Your task to perform on an android device: Add "logitech g502" to the cart on ebay.com, then select checkout. Image 0: 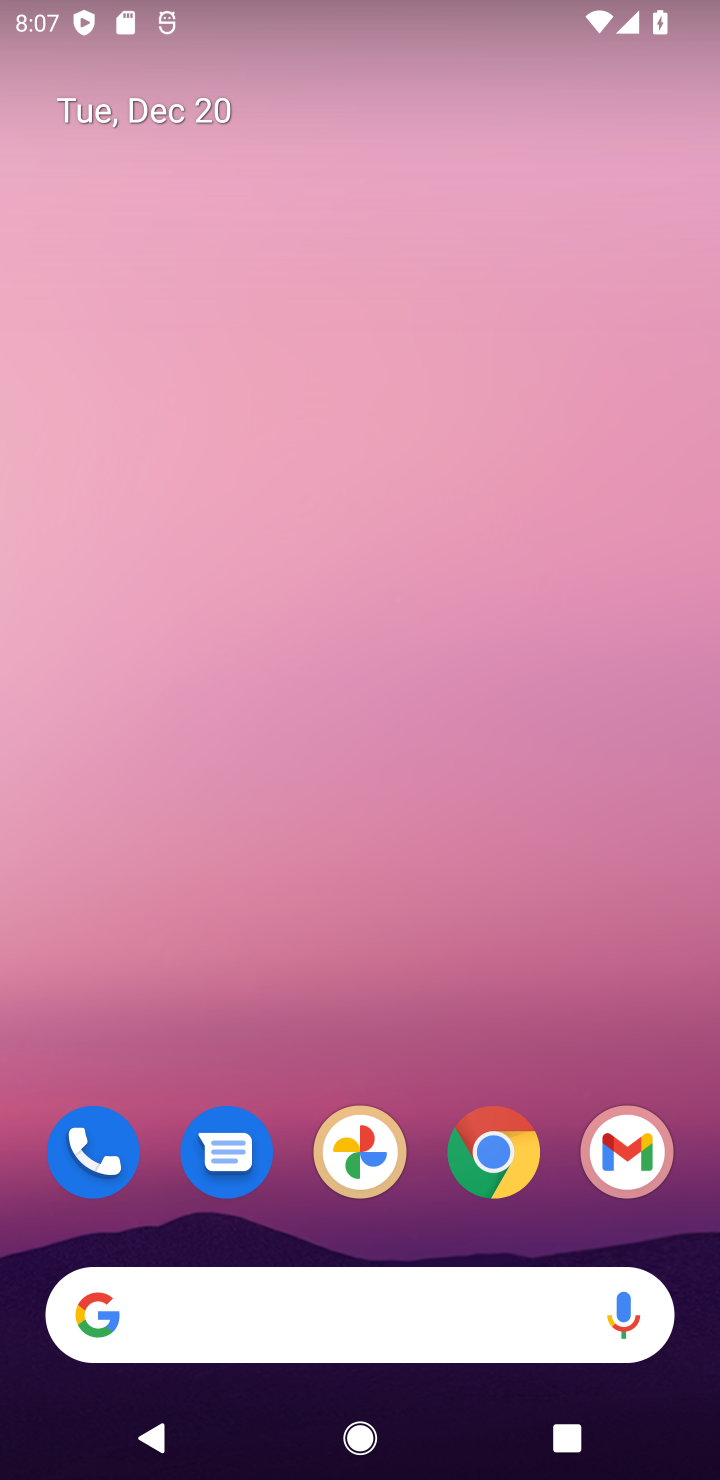
Step 0: click (502, 1178)
Your task to perform on an android device: Add "logitech g502" to the cart on ebay.com, then select checkout. Image 1: 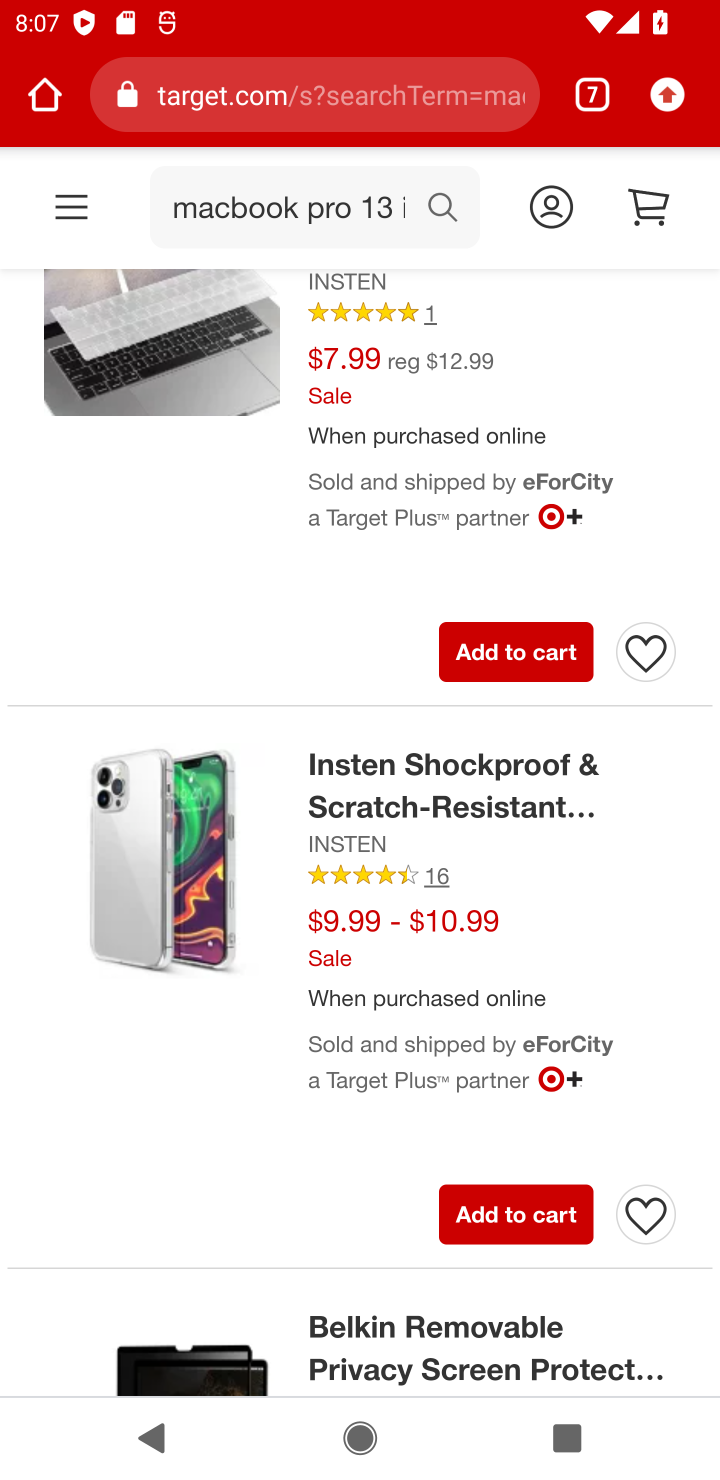
Step 1: click (600, 98)
Your task to perform on an android device: Add "logitech g502" to the cart on ebay.com, then select checkout. Image 2: 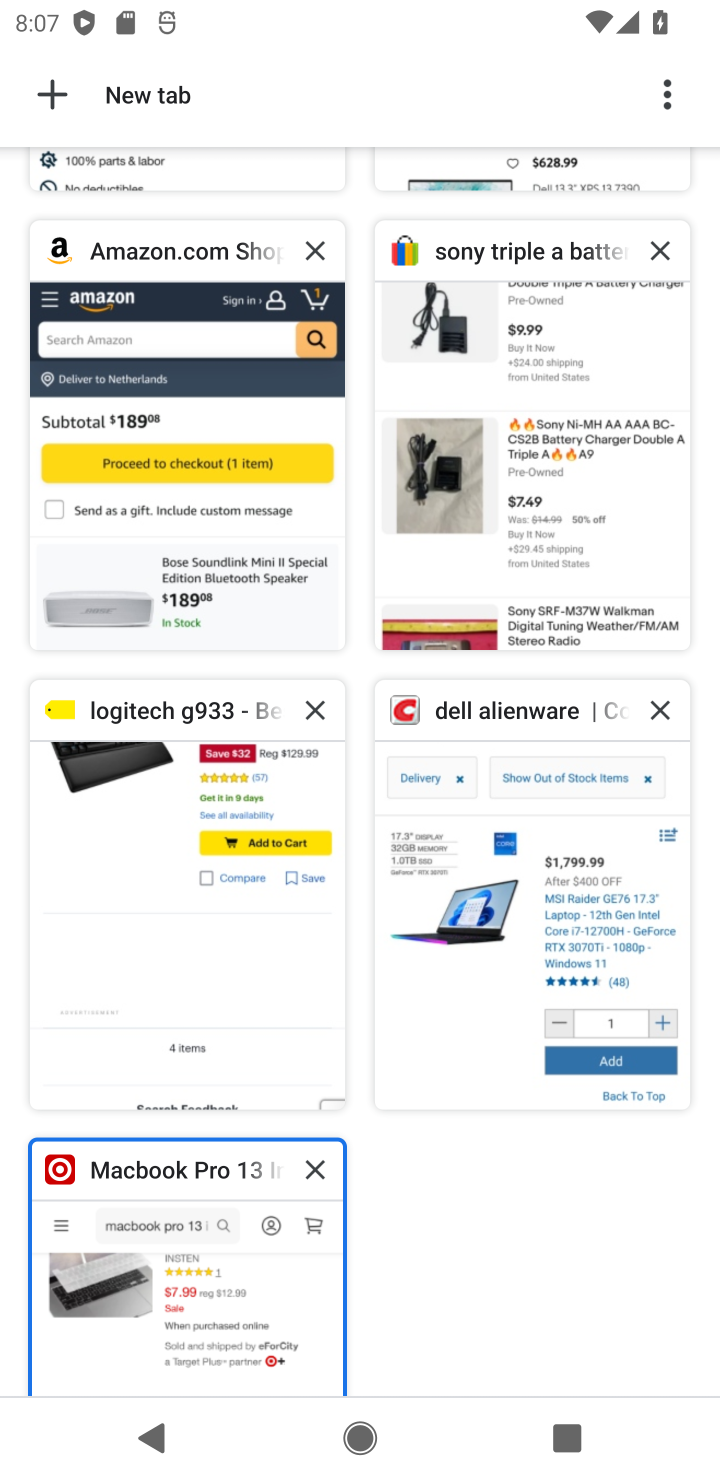
Step 2: click (464, 376)
Your task to perform on an android device: Add "logitech g502" to the cart on ebay.com, then select checkout. Image 3: 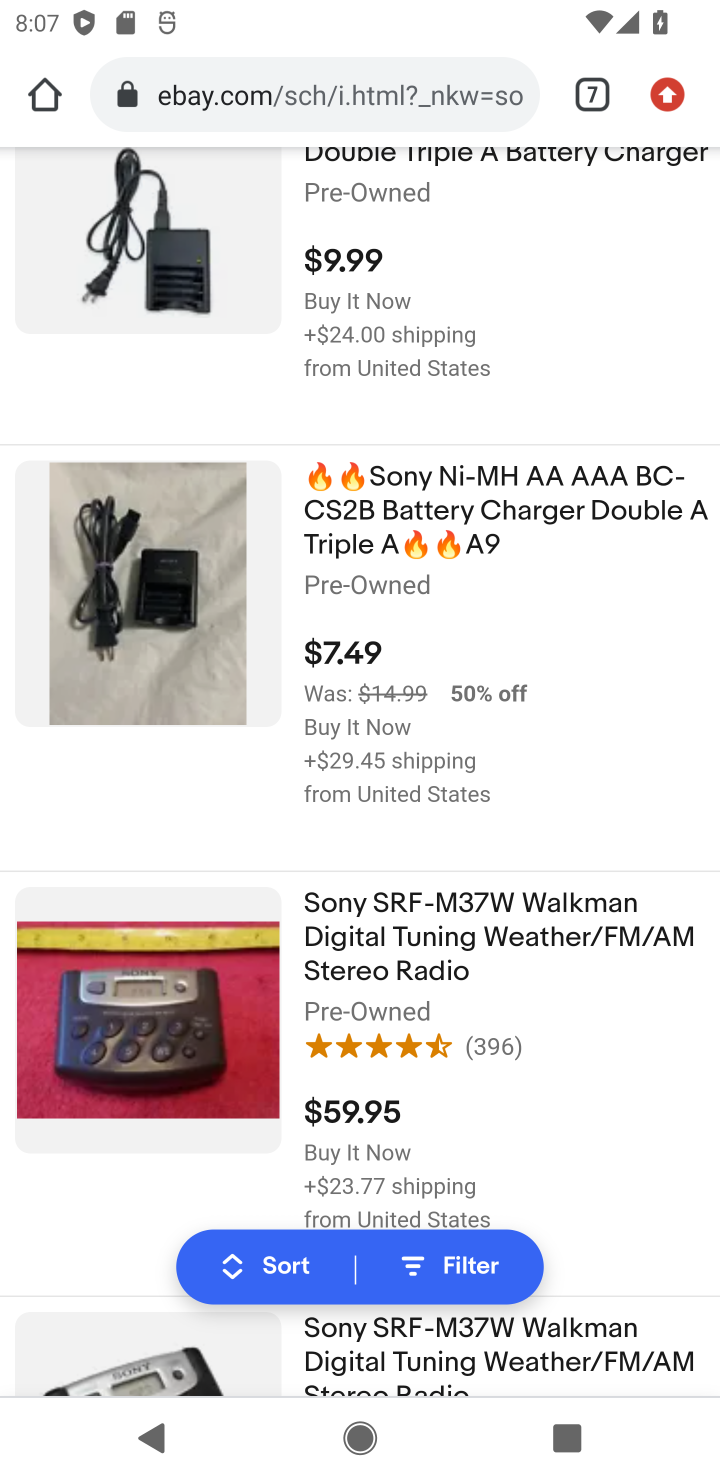
Step 3: drag from (570, 289) to (456, 1033)
Your task to perform on an android device: Add "logitech g502" to the cart on ebay.com, then select checkout. Image 4: 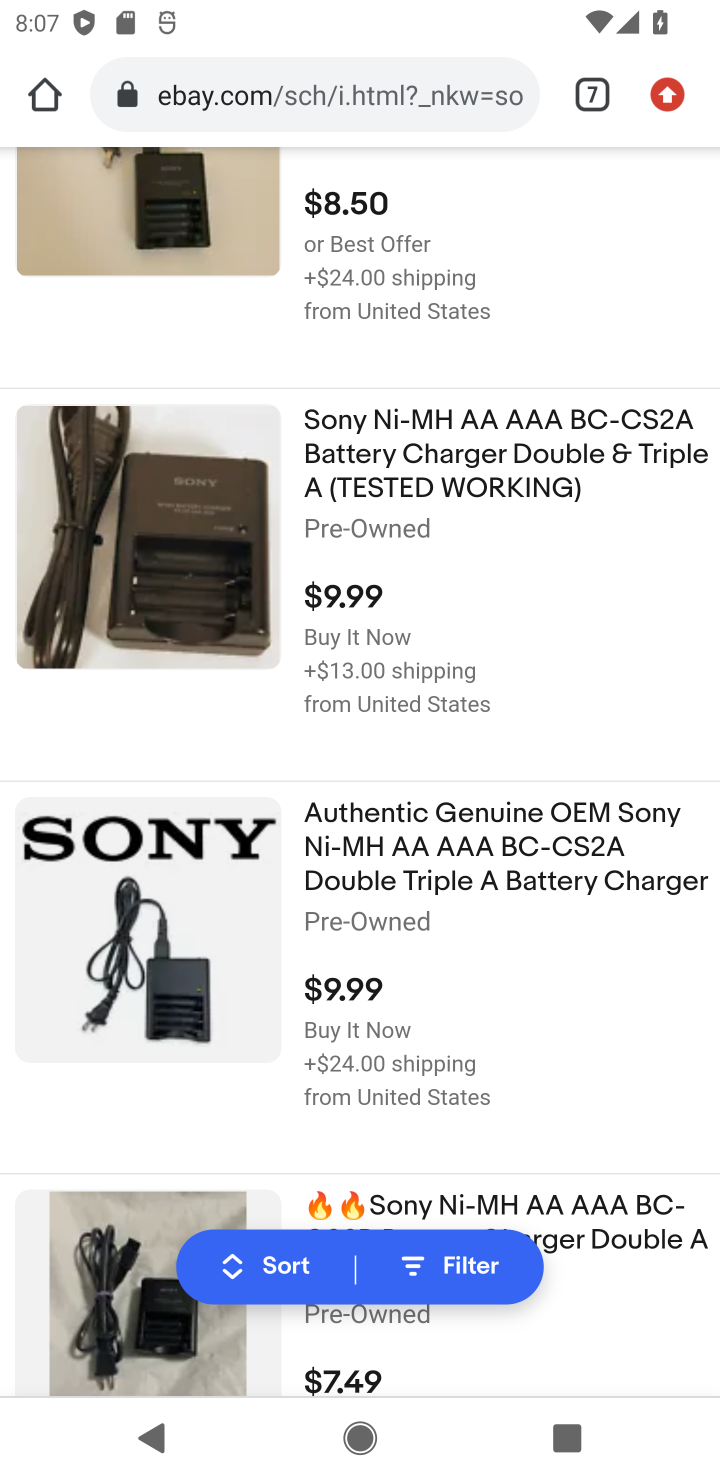
Step 4: drag from (481, 221) to (321, 888)
Your task to perform on an android device: Add "logitech g502" to the cart on ebay.com, then select checkout. Image 5: 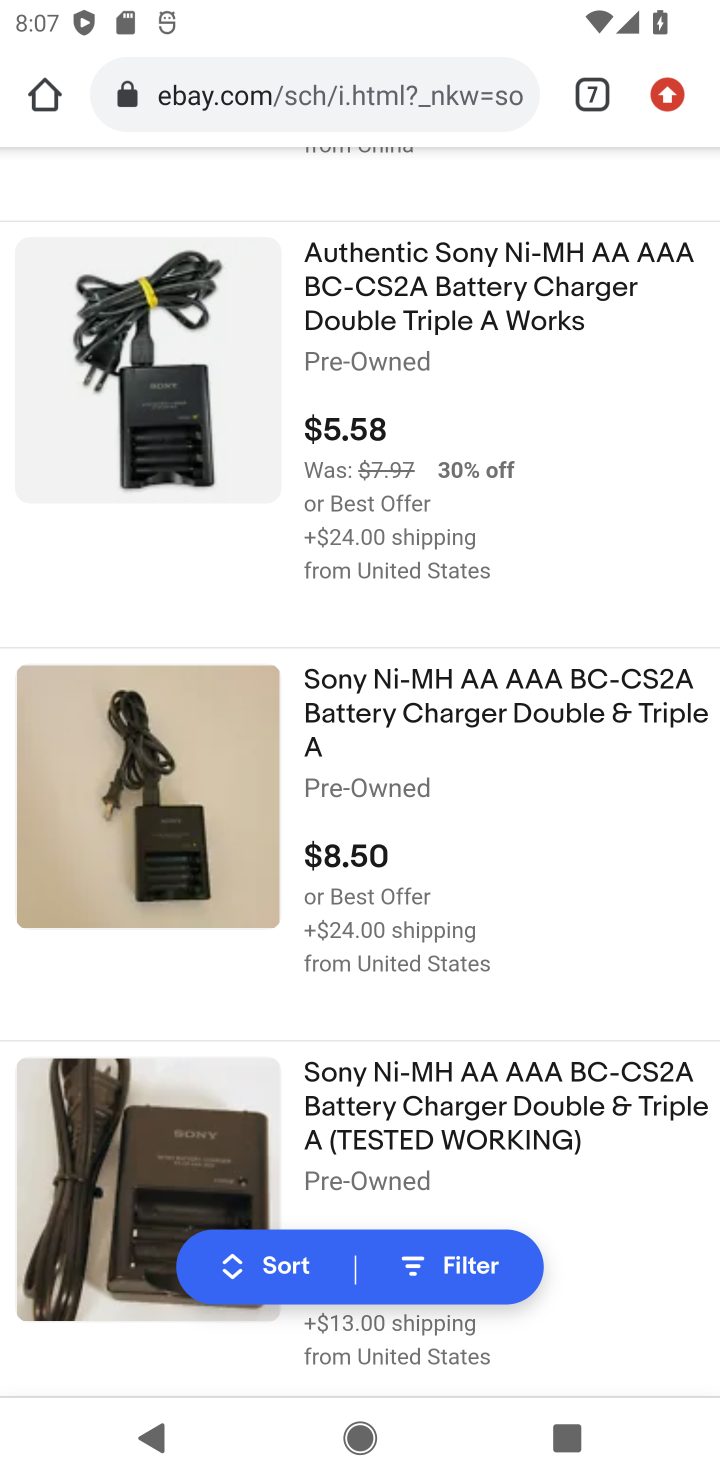
Step 5: drag from (383, 185) to (220, 1112)
Your task to perform on an android device: Add "logitech g502" to the cart on ebay.com, then select checkout. Image 6: 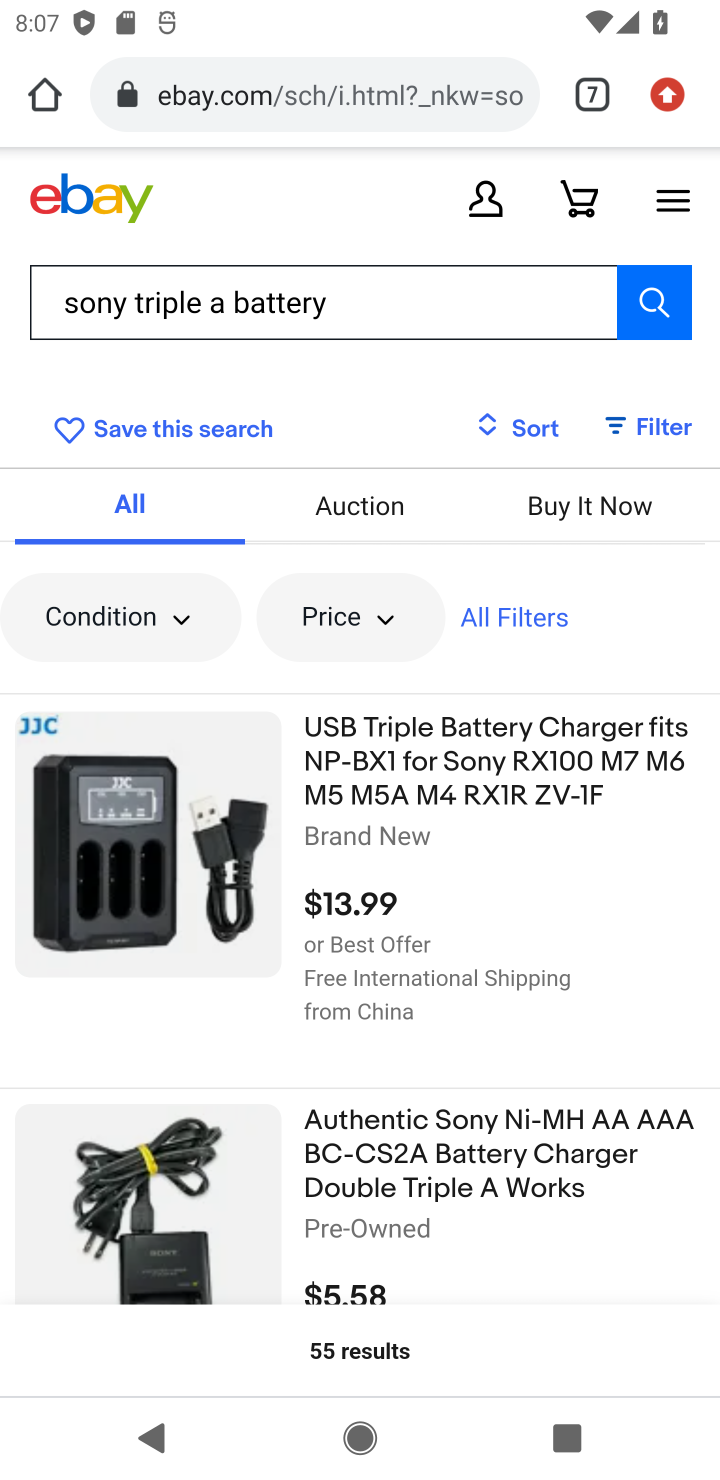
Step 6: click (372, 333)
Your task to perform on an android device: Add "logitech g502" to the cart on ebay.com, then select checkout. Image 7: 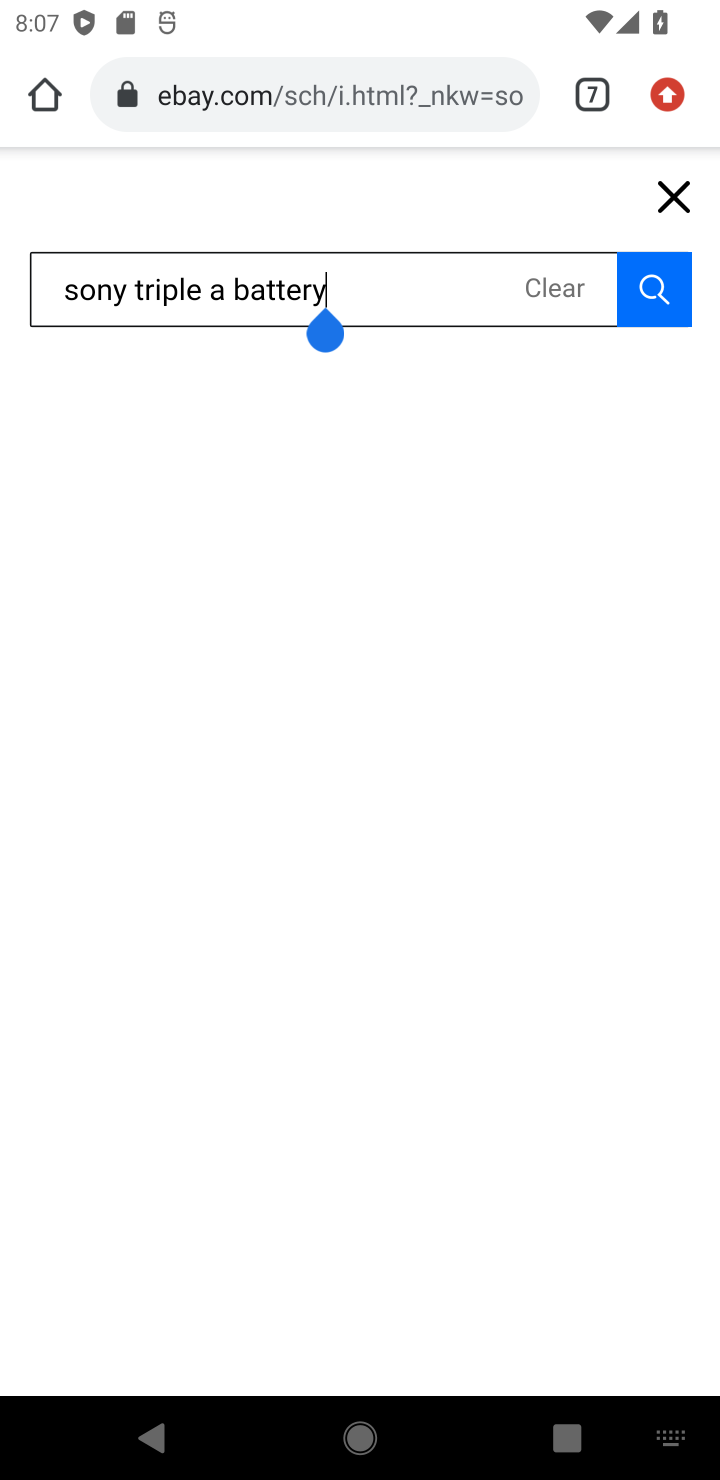
Step 7: click (560, 291)
Your task to perform on an android device: Add "logitech g502" to the cart on ebay.com, then select checkout. Image 8: 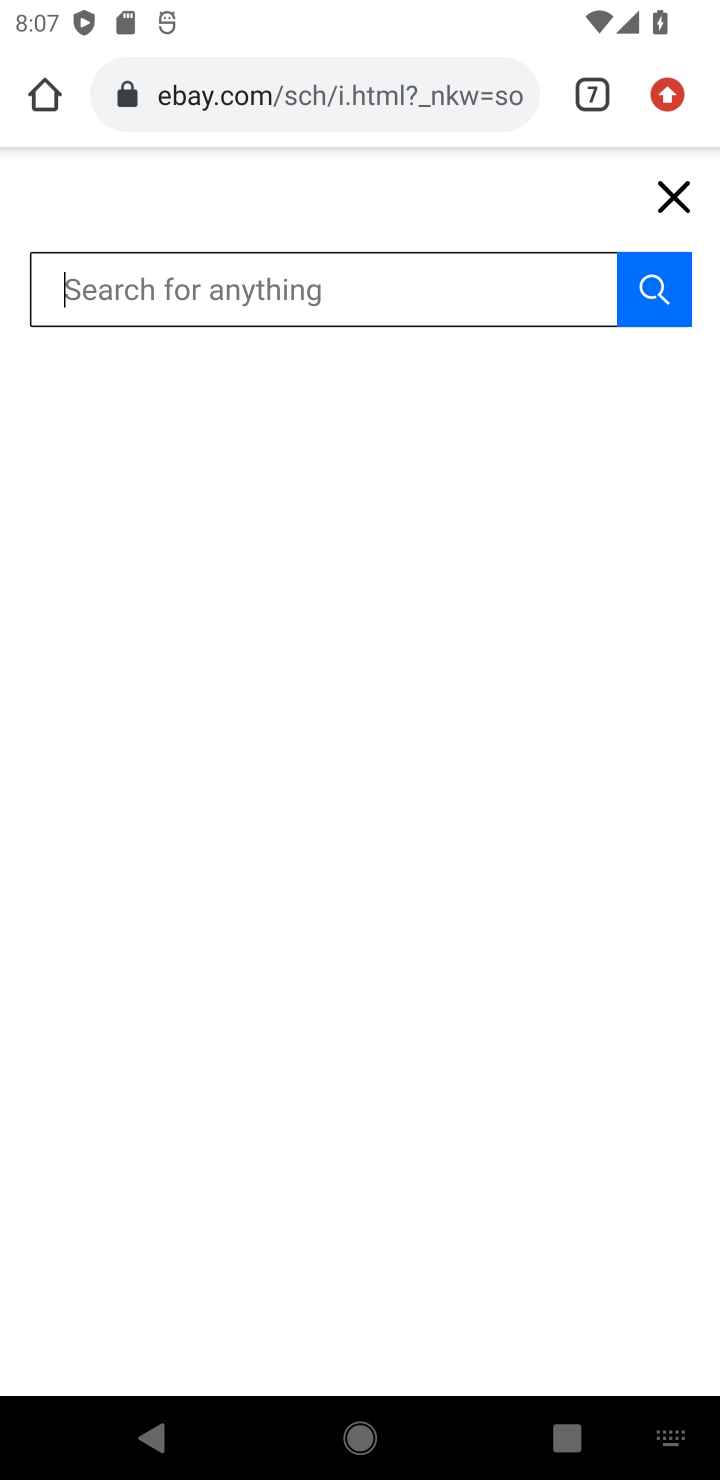
Step 8: type "logitech g502"
Your task to perform on an android device: Add "logitech g502" to the cart on ebay.com, then select checkout. Image 9: 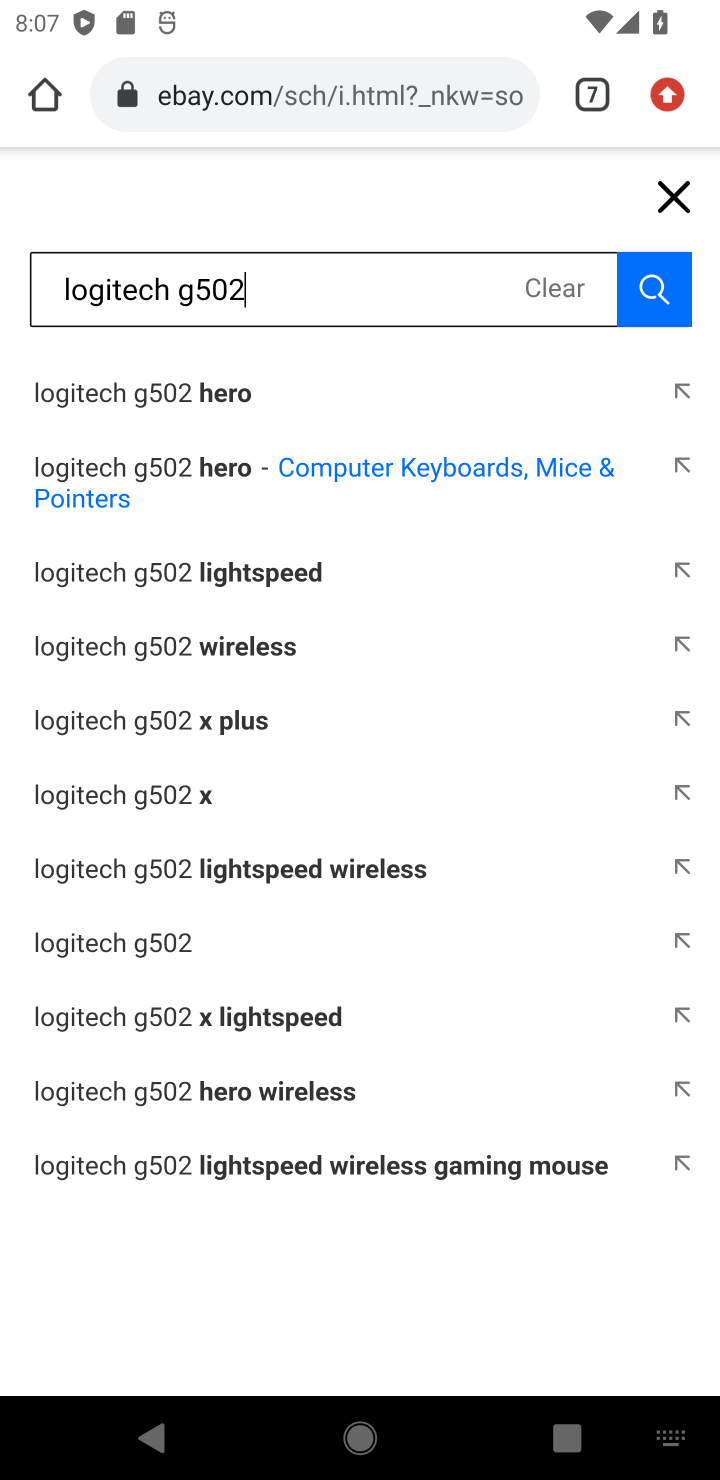
Step 9: click (170, 469)
Your task to perform on an android device: Add "logitech g502" to the cart on ebay.com, then select checkout. Image 10: 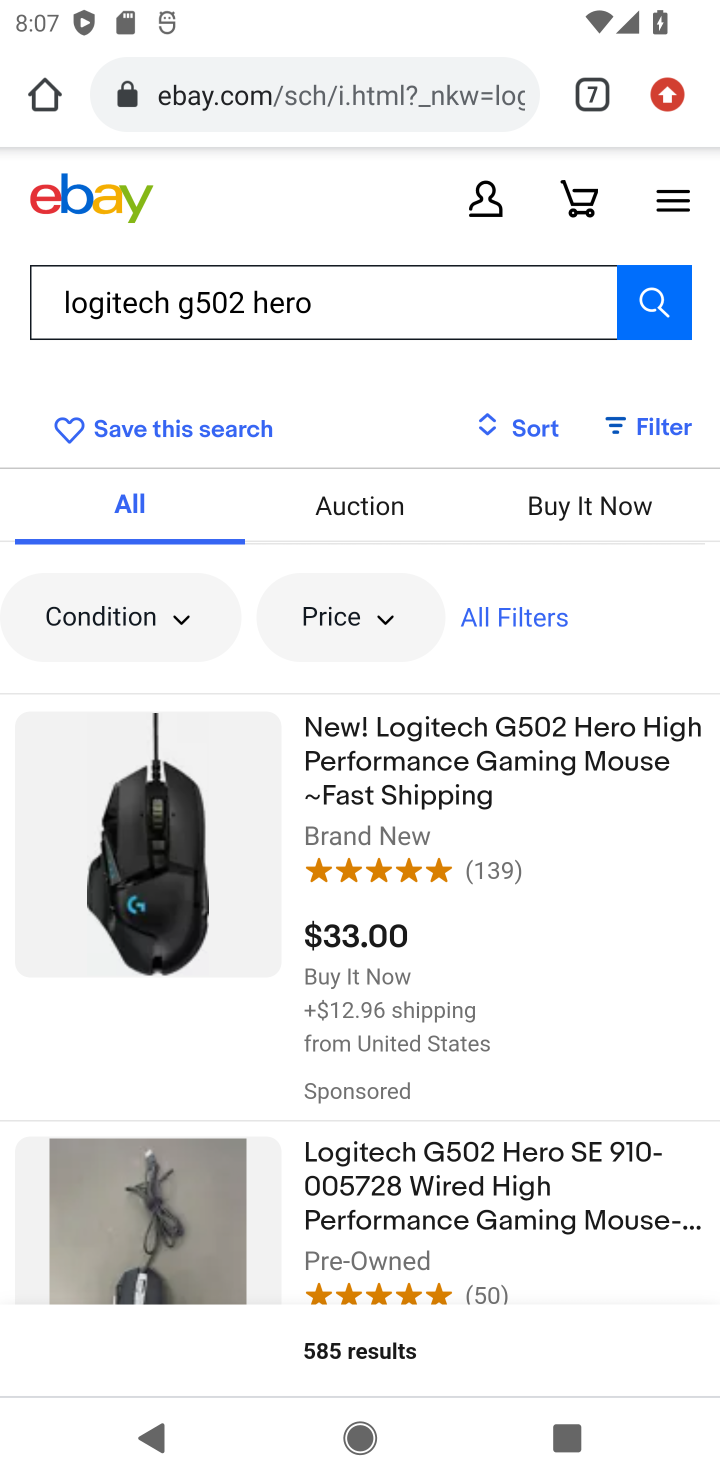
Step 10: click (398, 792)
Your task to perform on an android device: Add "logitech g502" to the cart on ebay.com, then select checkout. Image 11: 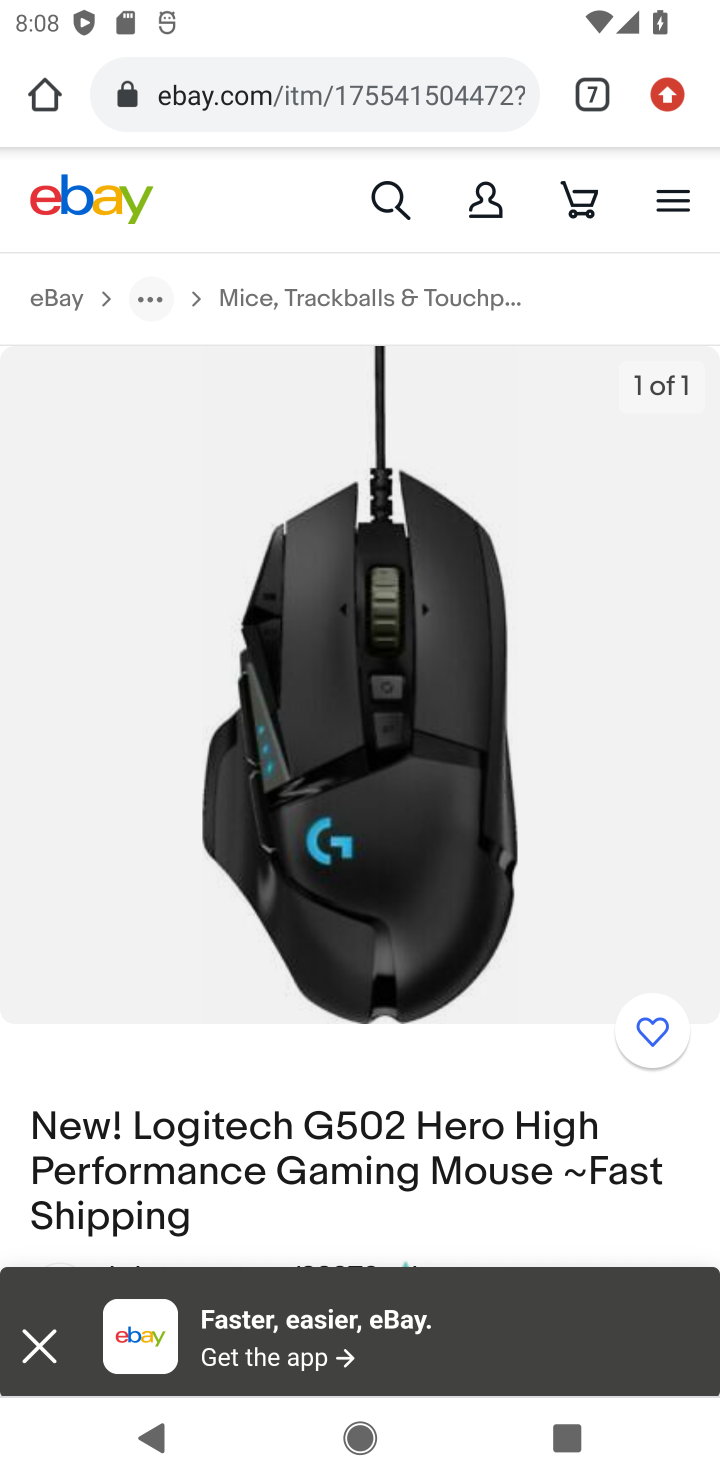
Step 11: click (440, 491)
Your task to perform on an android device: Add "logitech g502" to the cart on ebay.com, then select checkout. Image 12: 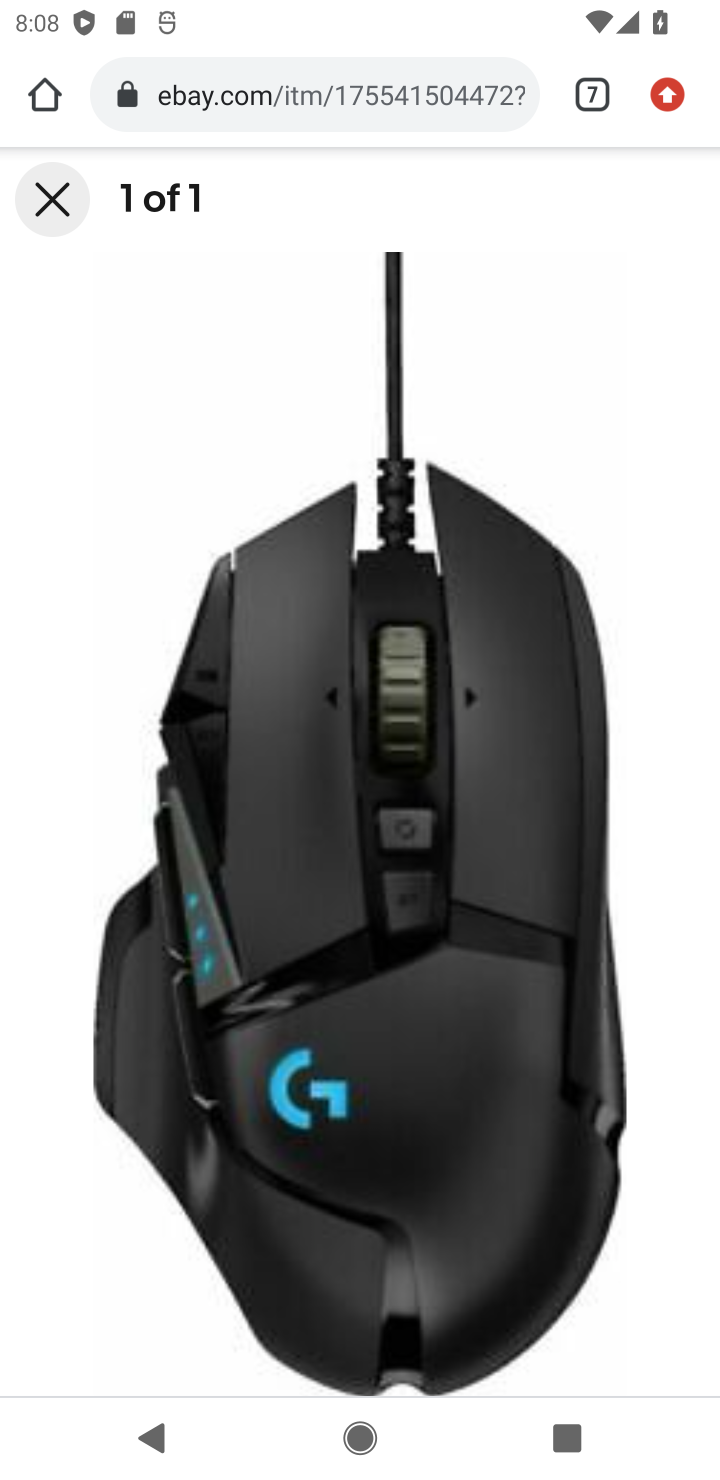
Step 12: click (52, 208)
Your task to perform on an android device: Add "logitech g502" to the cart on ebay.com, then select checkout. Image 13: 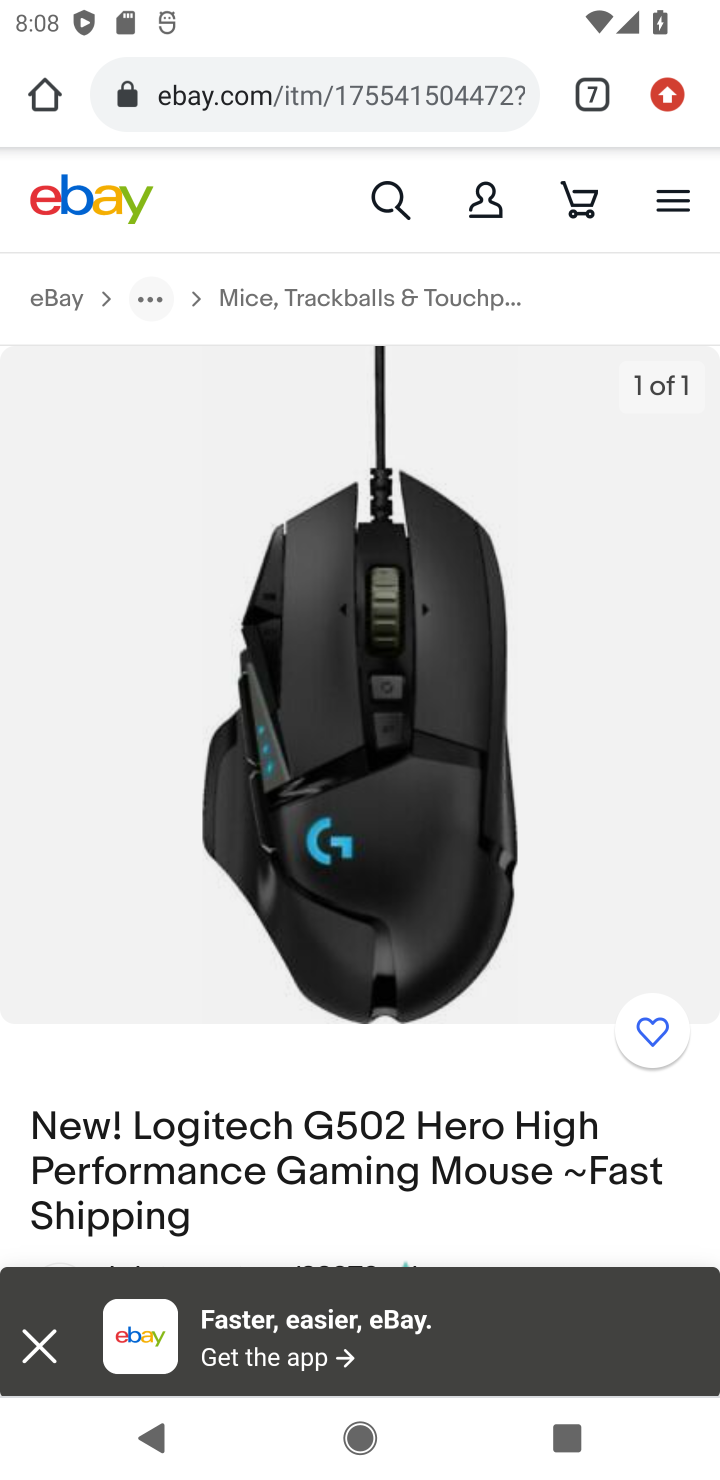
Step 13: click (50, 177)
Your task to perform on an android device: Add "logitech g502" to the cart on ebay.com, then select checkout. Image 14: 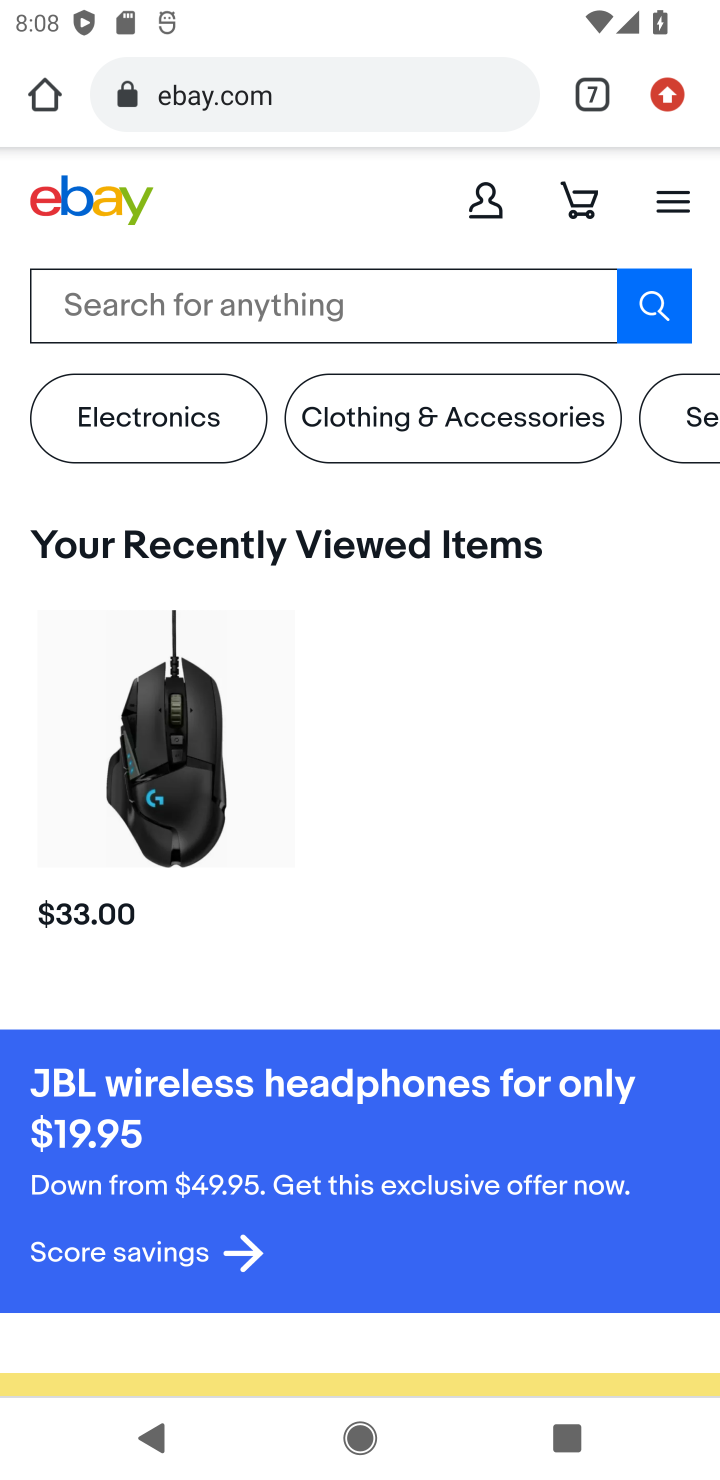
Step 14: drag from (306, 1040) to (408, 257)
Your task to perform on an android device: Add "logitech g502" to the cart on ebay.com, then select checkout. Image 15: 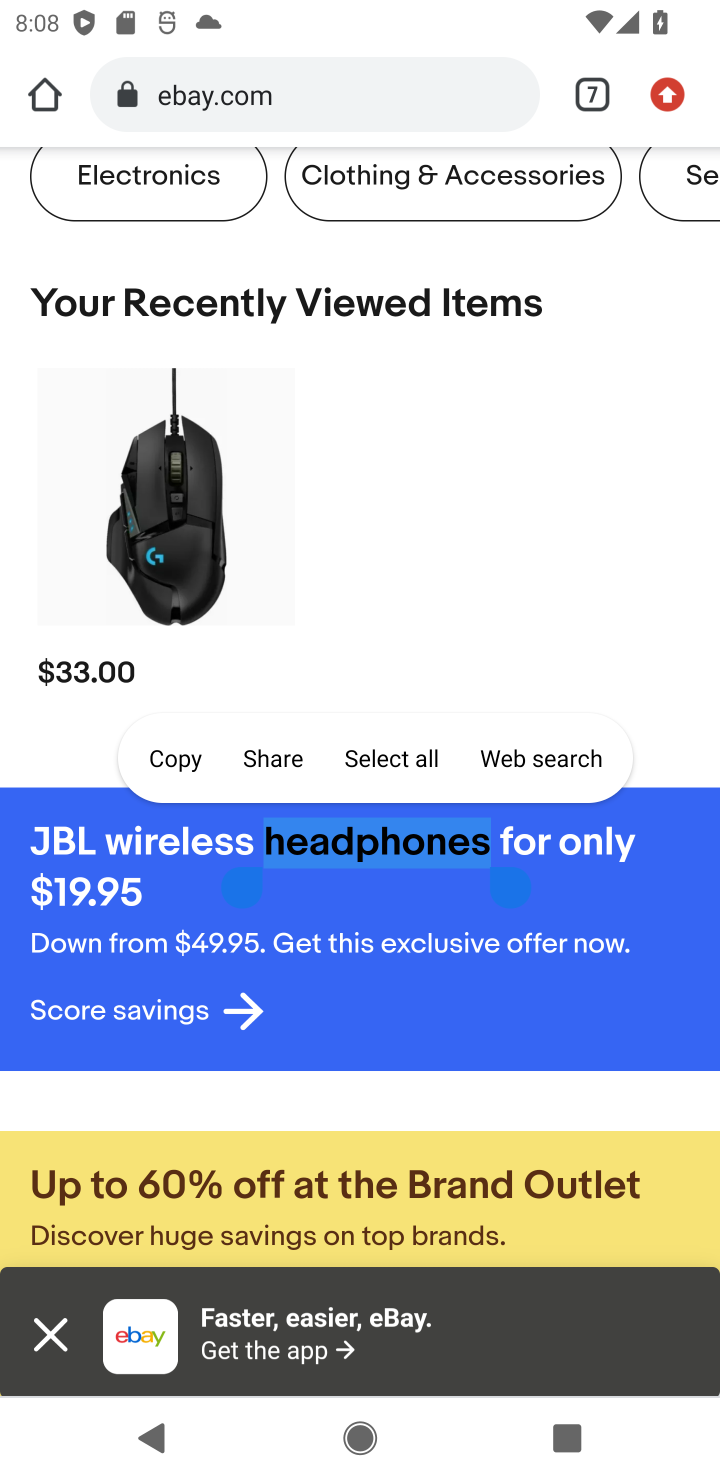
Step 15: click (160, 731)
Your task to perform on an android device: Add "logitech g502" to the cart on ebay.com, then select checkout. Image 16: 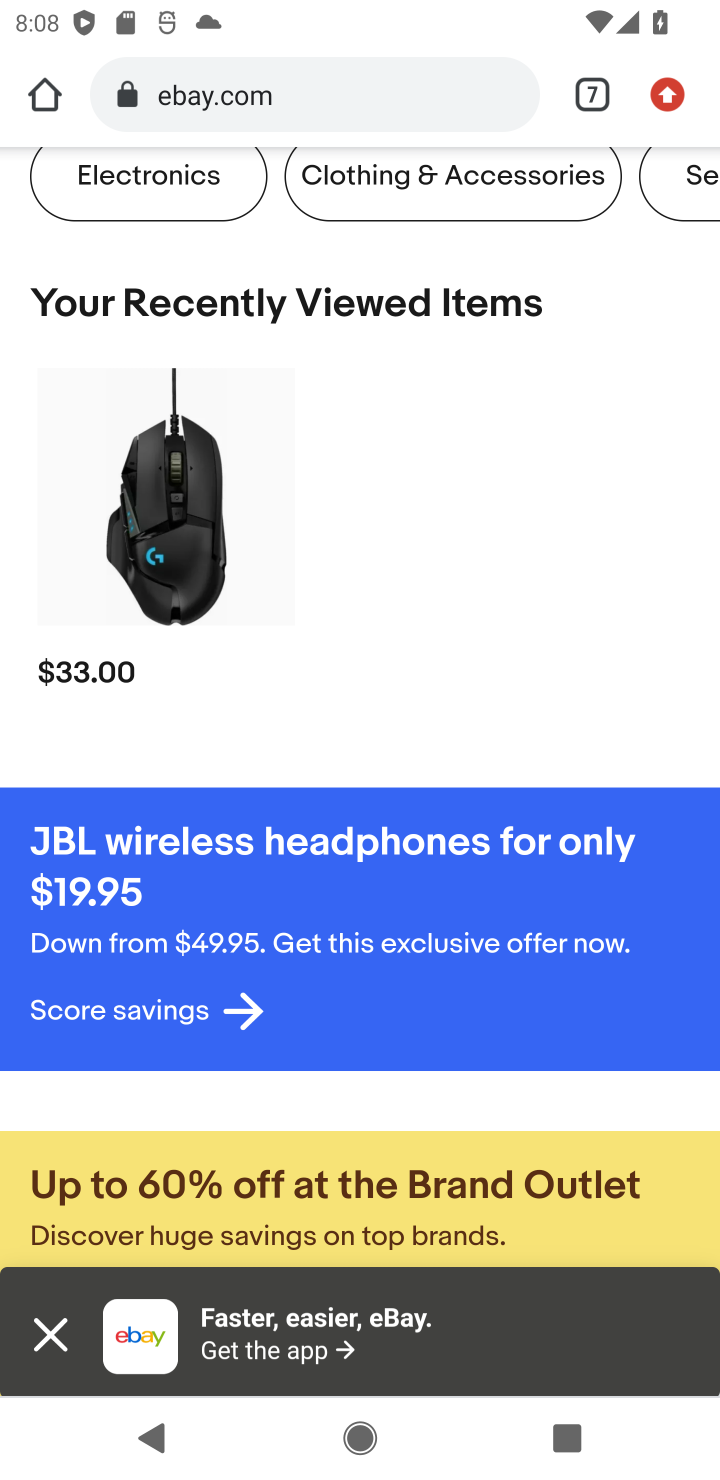
Step 16: click (185, 532)
Your task to perform on an android device: Add "logitech g502" to the cart on ebay.com, then select checkout. Image 17: 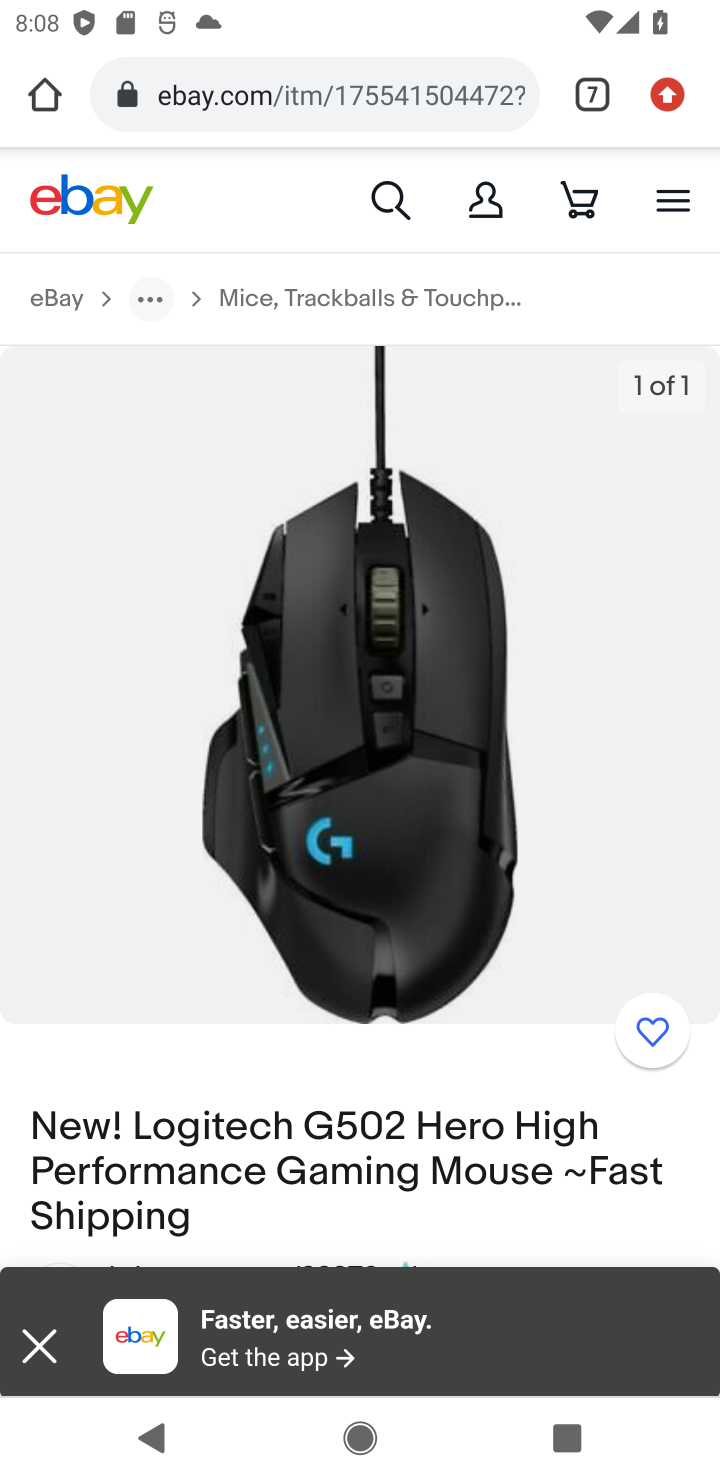
Step 17: drag from (356, 1127) to (477, 505)
Your task to perform on an android device: Add "logitech g502" to the cart on ebay.com, then select checkout. Image 18: 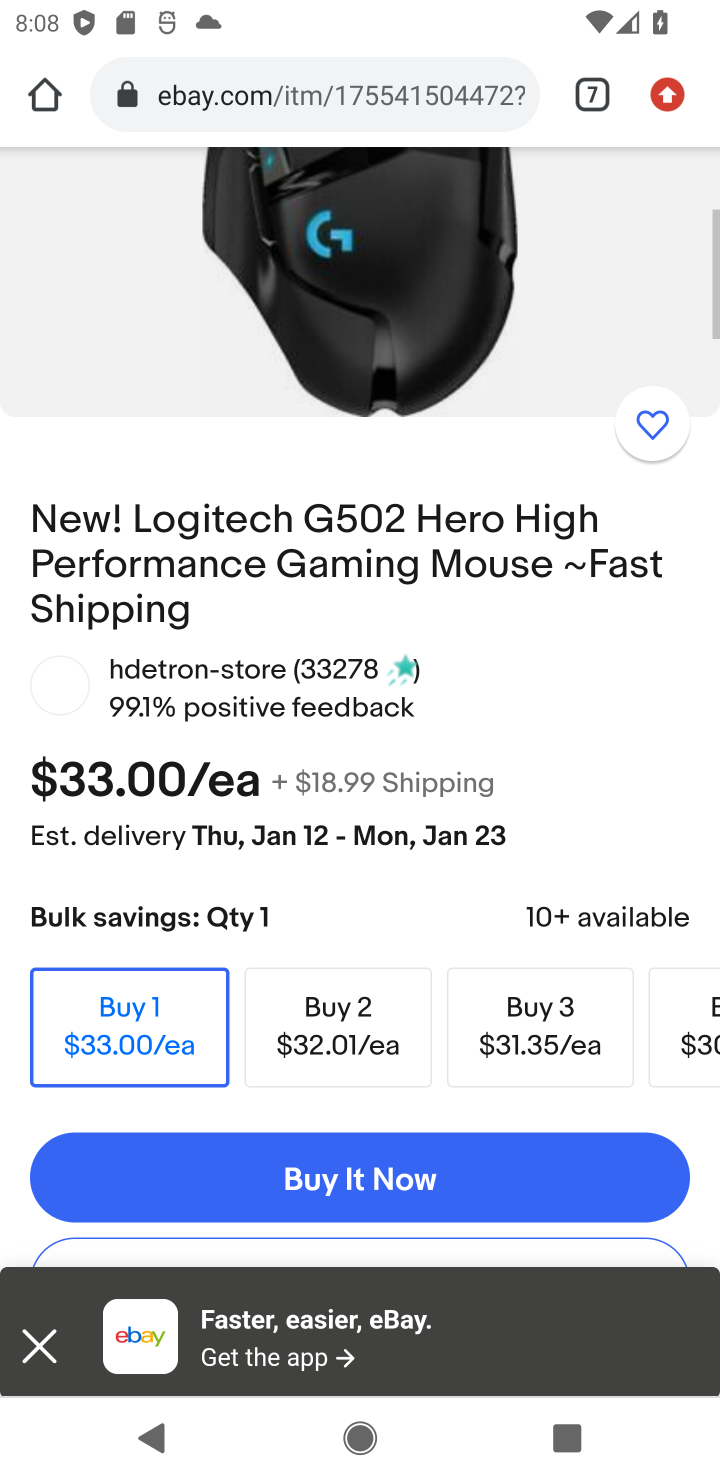
Step 18: click (655, 482)
Your task to perform on an android device: Add "logitech g502" to the cart on ebay.com, then select checkout. Image 19: 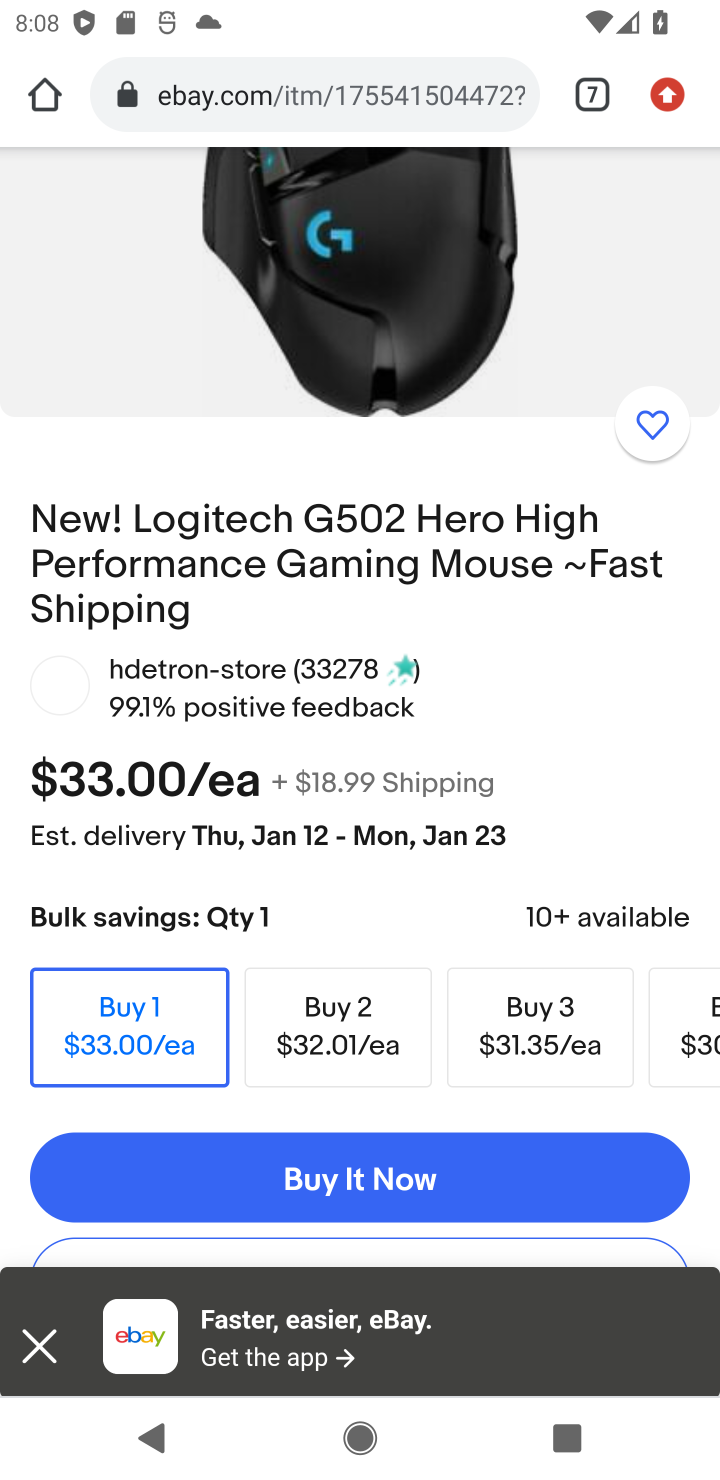
Step 19: drag from (404, 988) to (429, 0)
Your task to perform on an android device: Add "logitech g502" to the cart on ebay.com, then select checkout. Image 20: 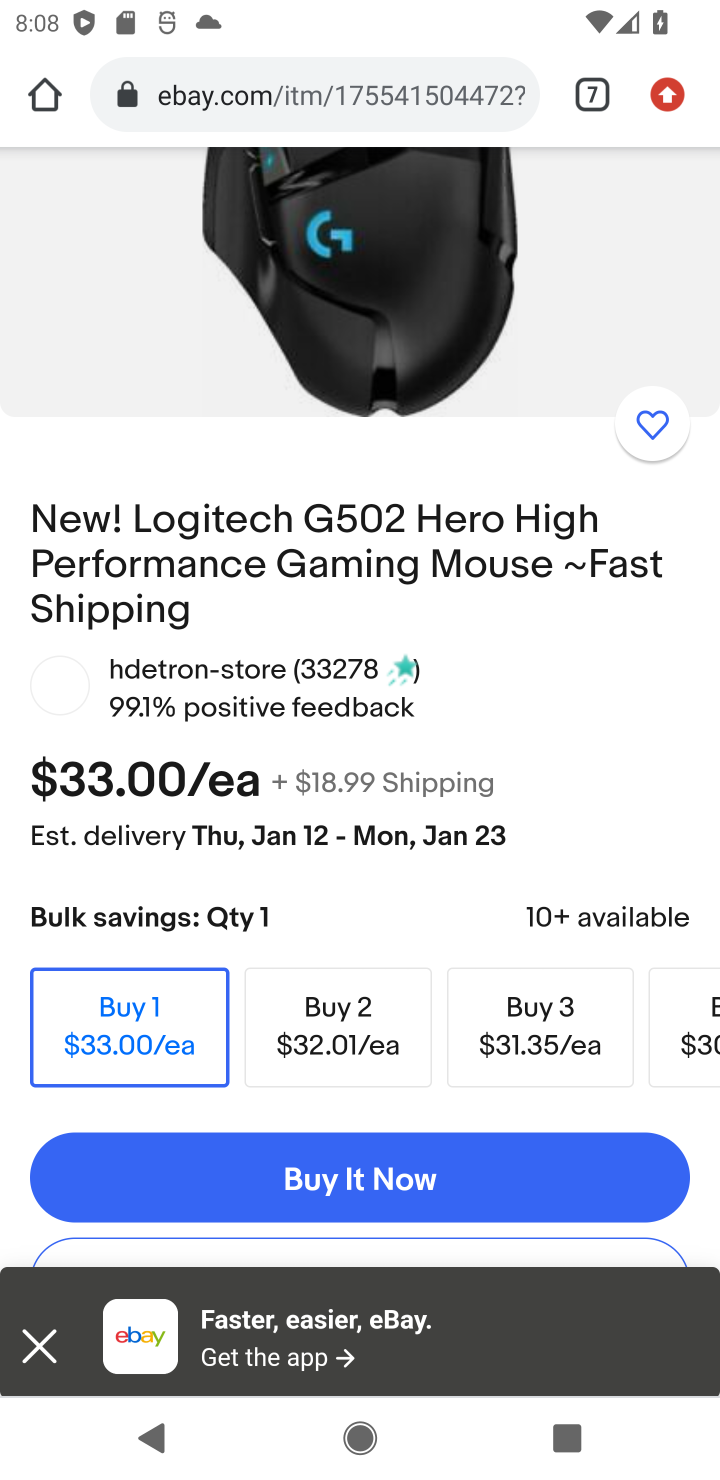
Step 20: drag from (490, 1084) to (544, 112)
Your task to perform on an android device: Add "logitech g502" to the cart on ebay.com, then select checkout. Image 21: 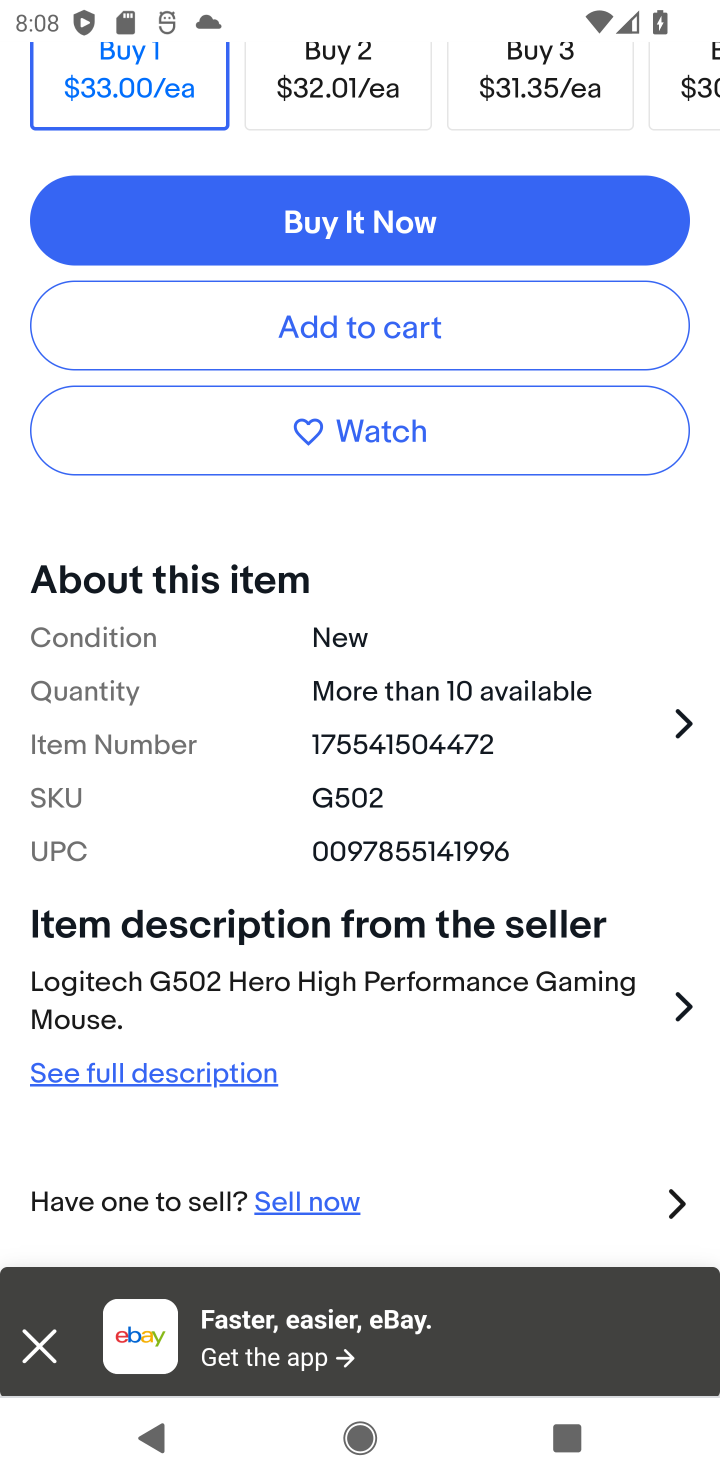
Step 21: click (396, 345)
Your task to perform on an android device: Add "logitech g502" to the cart on ebay.com, then select checkout. Image 22: 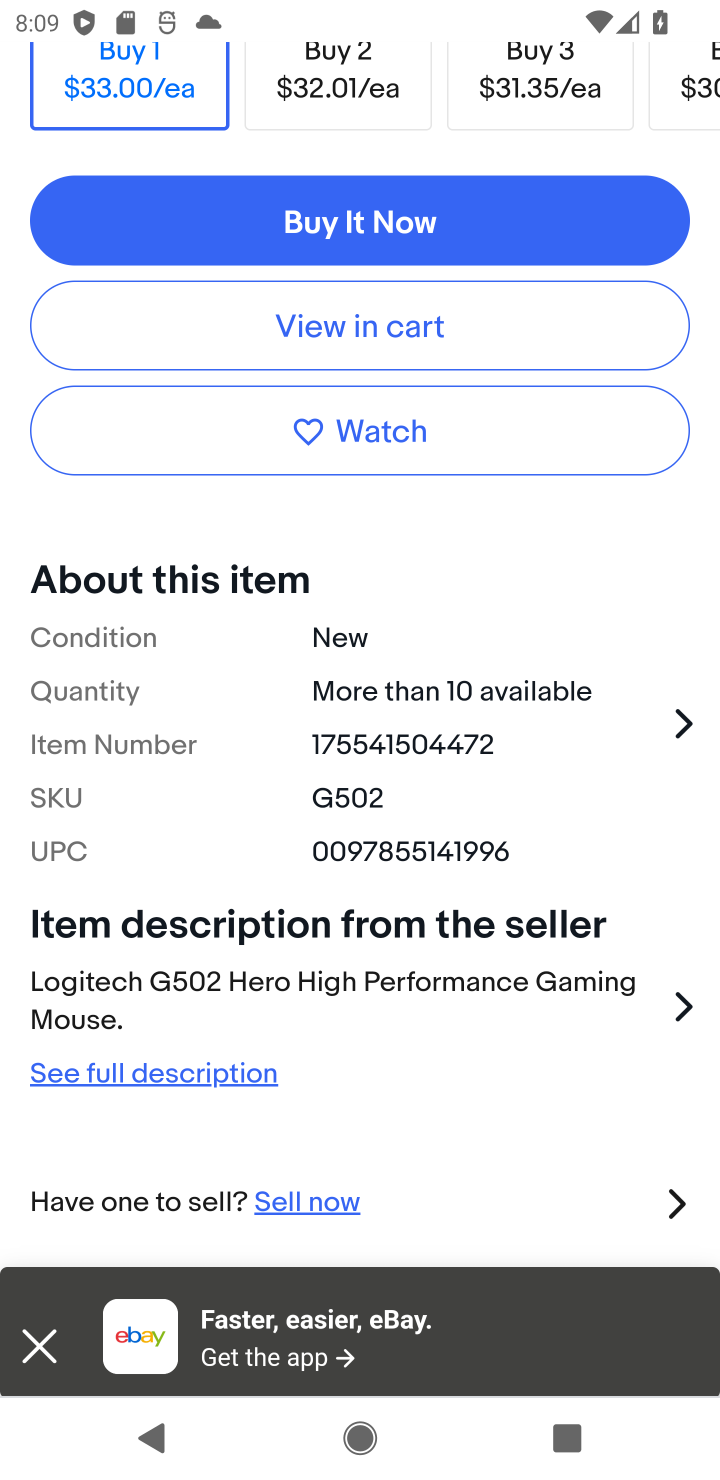
Step 22: task complete